Your task to perform on an android device: change notifications settings Image 0: 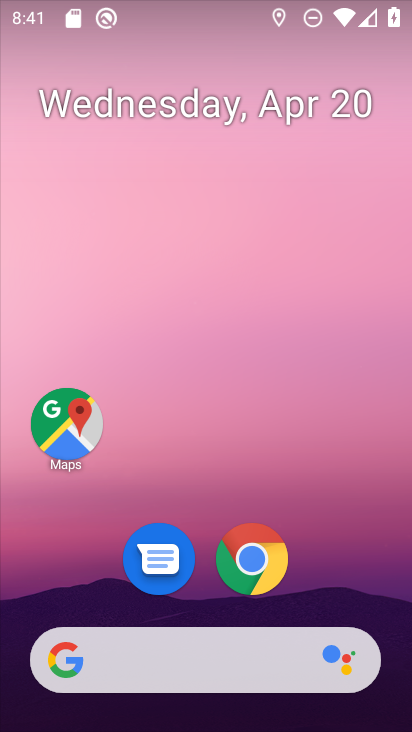
Step 0: drag from (365, 602) to (261, 86)
Your task to perform on an android device: change notifications settings Image 1: 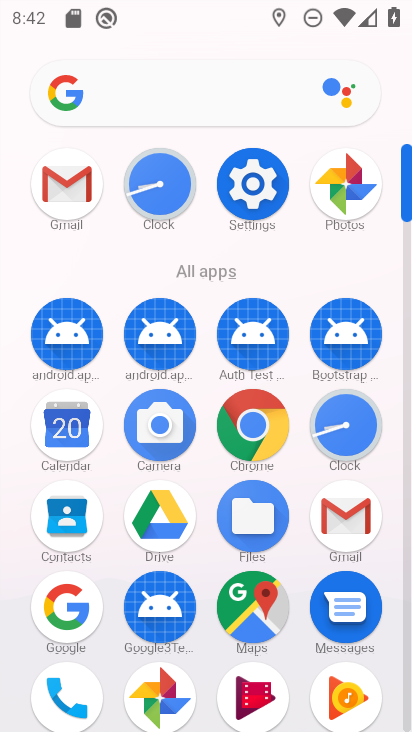
Step 1: click (407, 697)
Your task to perform on an android device: change notifications settings Image 2: 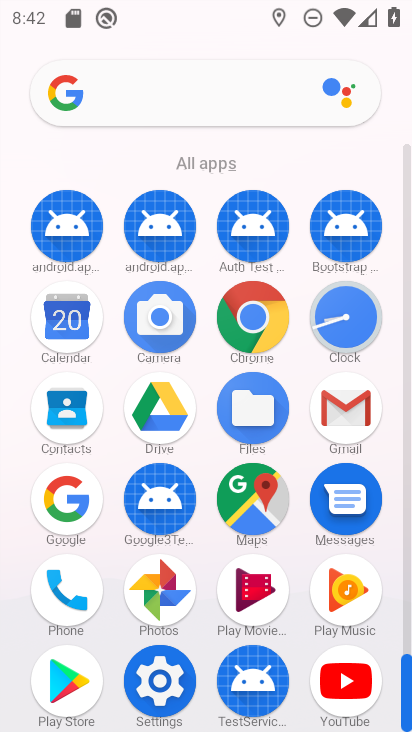
Step 2: click (158, 683)
Your task to perform on an android device: change notifications settings Image 3: 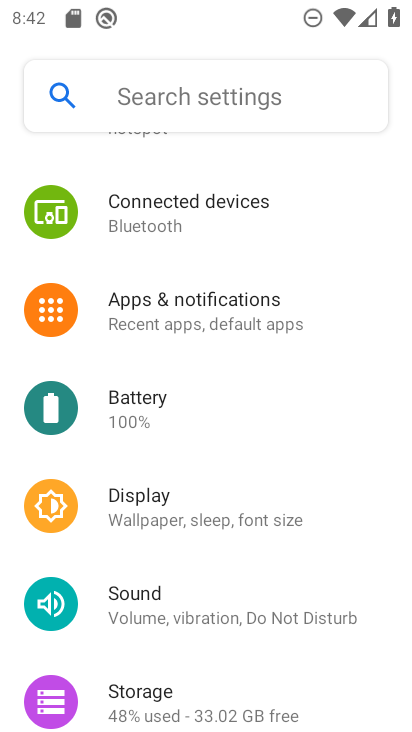
Step 3: click (175, 292)
Your task to perform on an android device: change notifications settings Image 4: 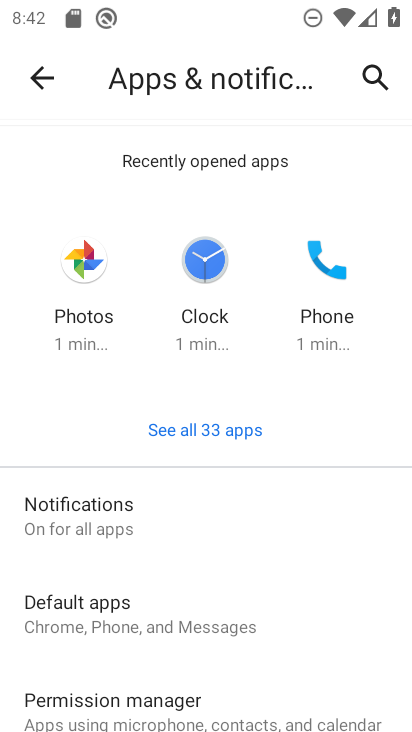
Step 4: click (95, 510)
Your task to perform on an android device: change notifications settings Image 5: 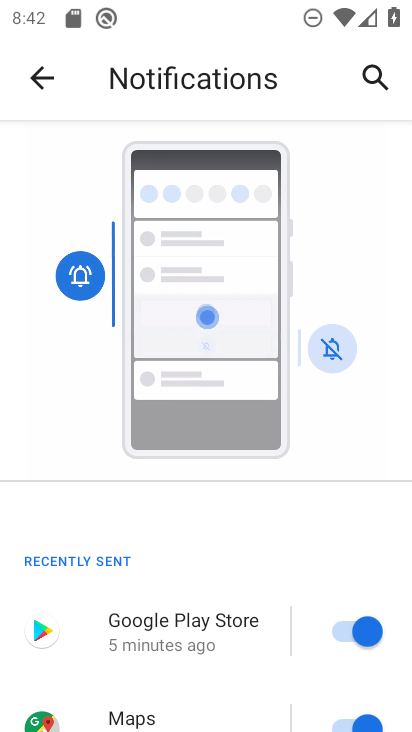
Step 5: drag from (282, 688) to (288, 292)
Your task to perform on an android device: change notifications settings Image 6: 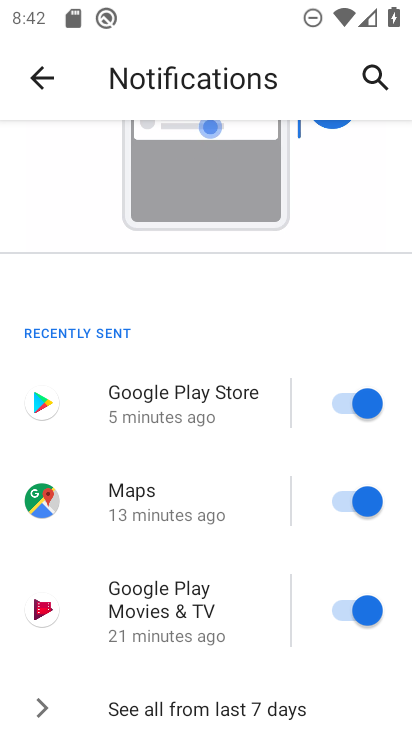
Step 6: drag from (302, 619) to (265, 164)
Your task to perform on an android device: change notifications settings Image 7: 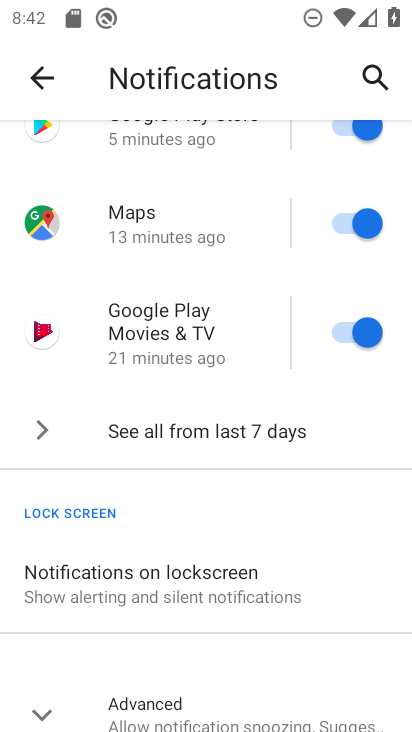
Step 7: drag from (251, 620) to (273, 247)
Your task to perform on an android device: change notifications settings Image 8: 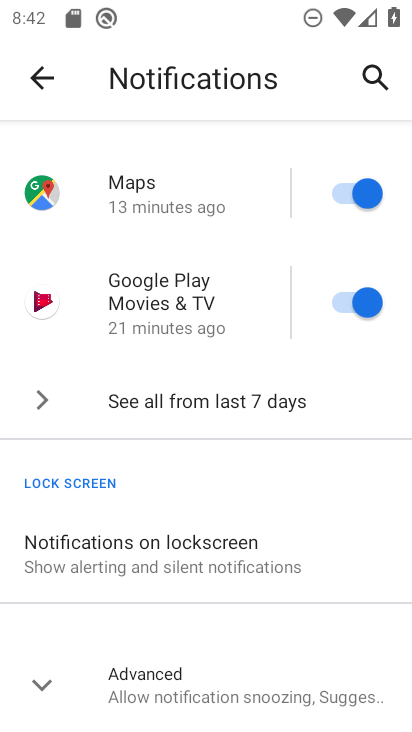
Step 8: click (43, 691)
Your task to perform on an android device: change notifications settings Image 9: 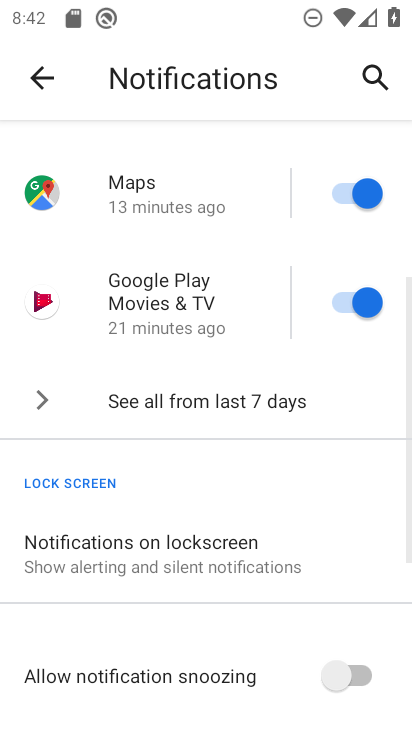
Step 9: drag from (259, 669) to (281, 261)
Your task to perform on an android device: change notifications settings Image 10: 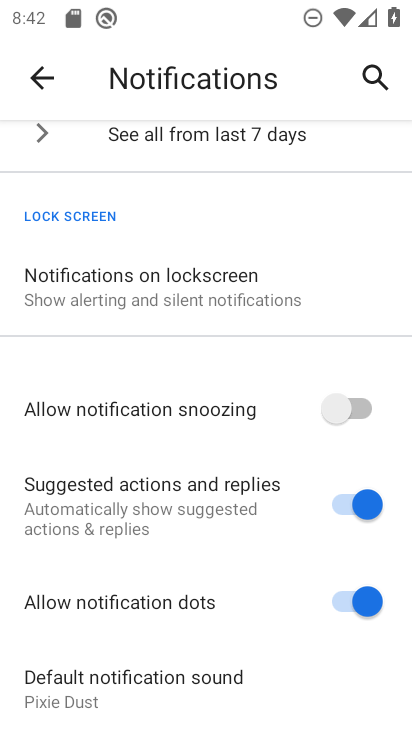
Step 10: click (353, 601)
Your task to perform on an android device: change notifications settings Image 11: 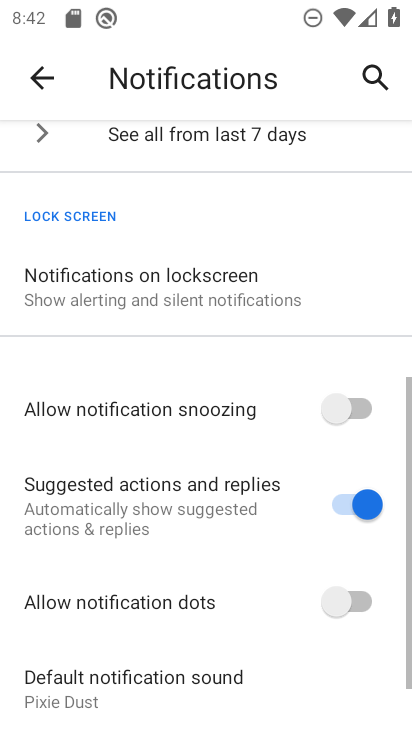
Step 11: click (337, 496)
Your task to perform on an android device: change notifications settings Image 12: 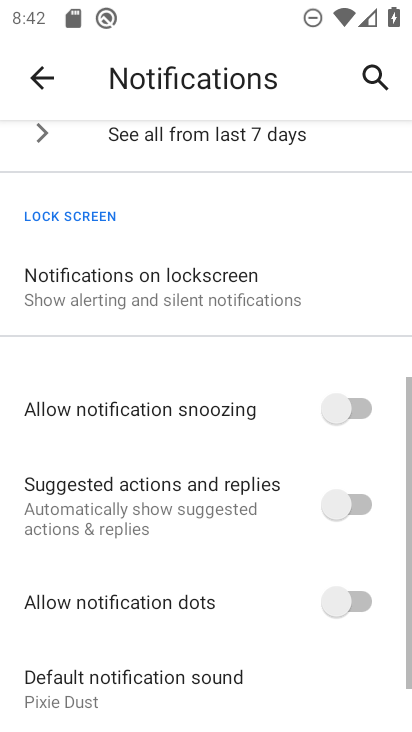
Step 12: click (365, 413)
Your task to perform on an android device: change notifications settings Image 13: 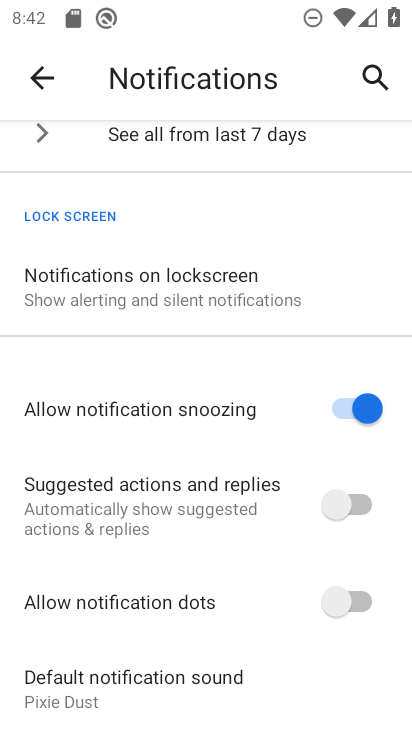
Step 13: task complete